Your task to perform on an android device: open wifi settings Image 0: 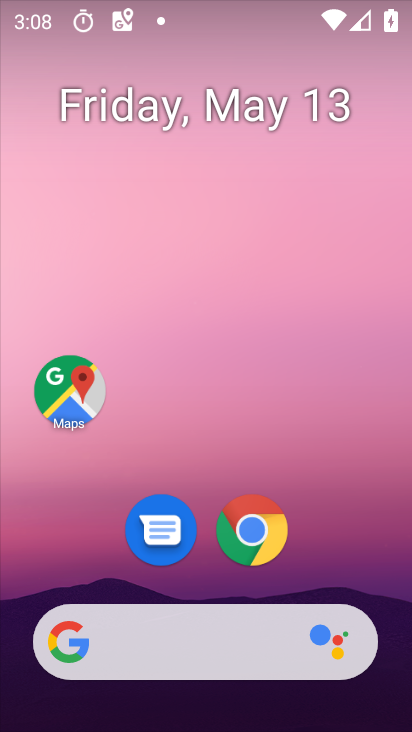
Step 0: drag from (346, 510) to (324, 120)
Your task to perform on an android device: open wifi settings Image 1: 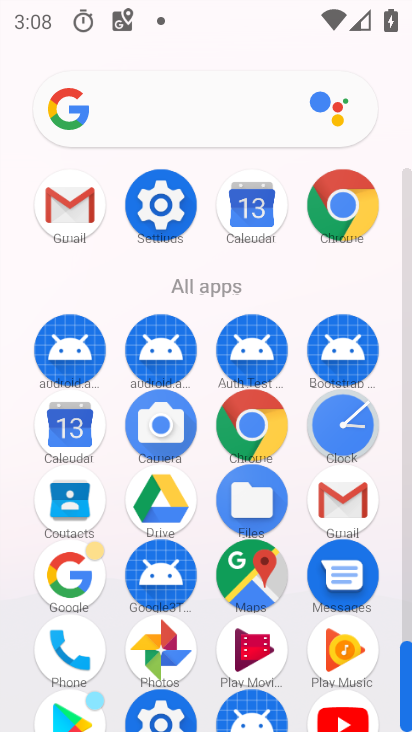
Step 1: click (168, 194)
Your task to perform on an android device: open wifi settings Image 2: 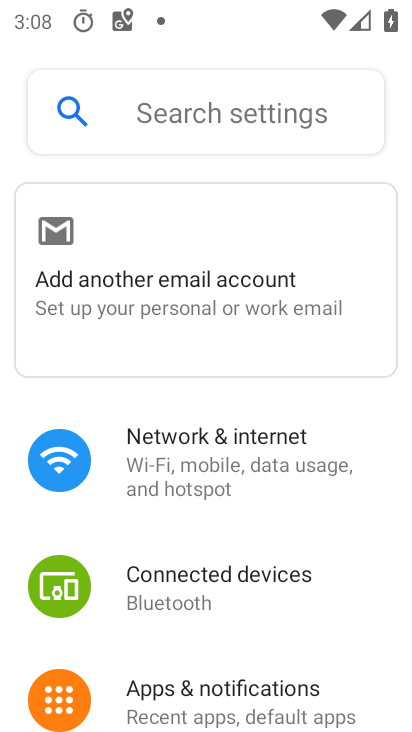
Step 2: click (228, 462)
Your task to perform on an android device: open wifi settings Image 3: 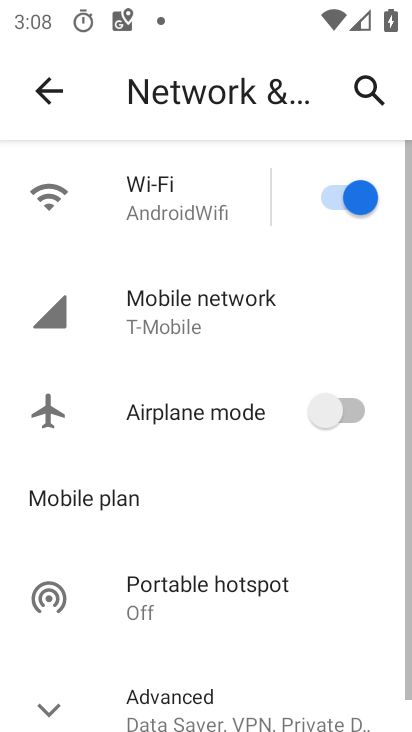
Step 3: click (200, 212)
Your task to perform on an android device: open wifi settings Image 4: 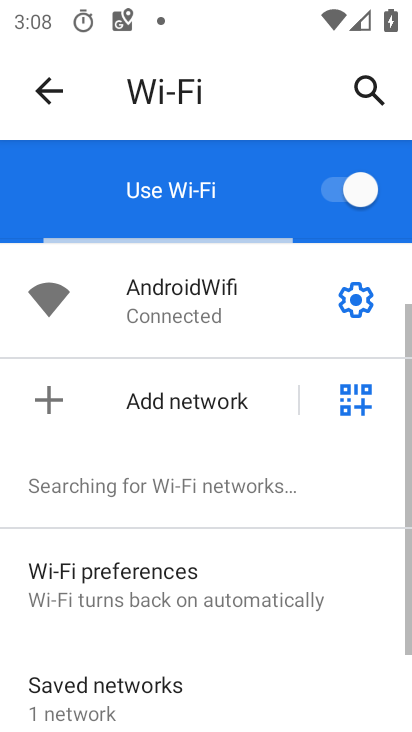
Step 4: click (359, 289)
Your task to perform on an android device: open wifi settings Image 5: 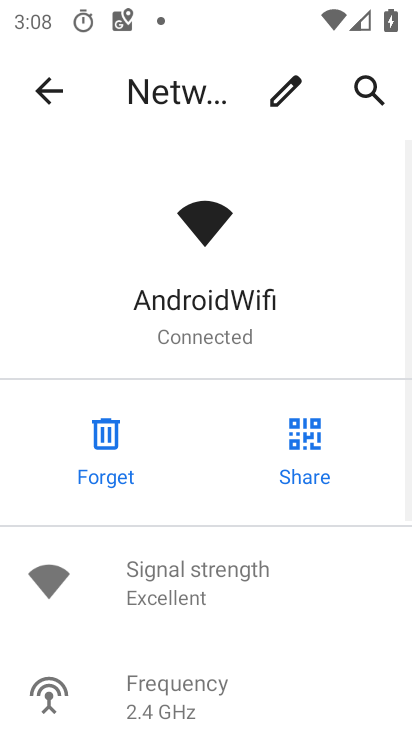
Step 5: task complete